Your task to perform on an android device: toggle location history Image 0: 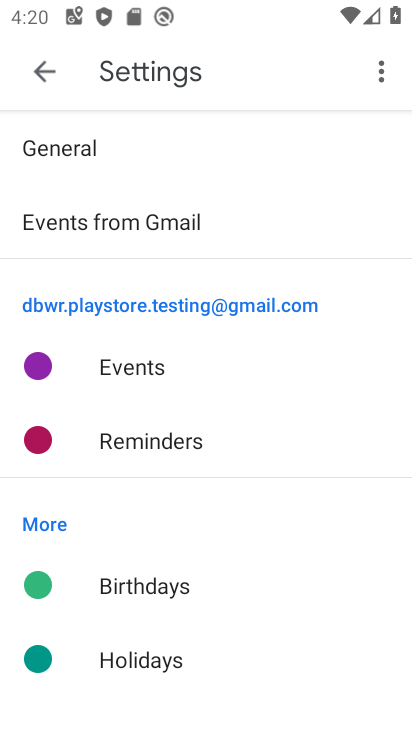
Step 0: press home button
Your task to perform on an android device: toggle location history Image 1: 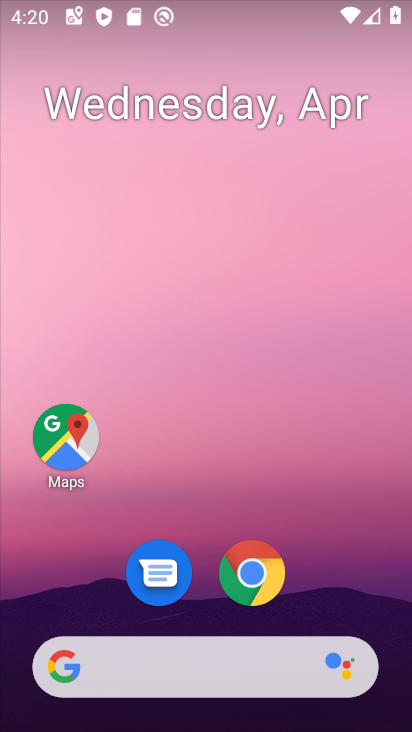
Step 1: click (63, 439)
Your task to perform on an android device: toggle location history Image 2: 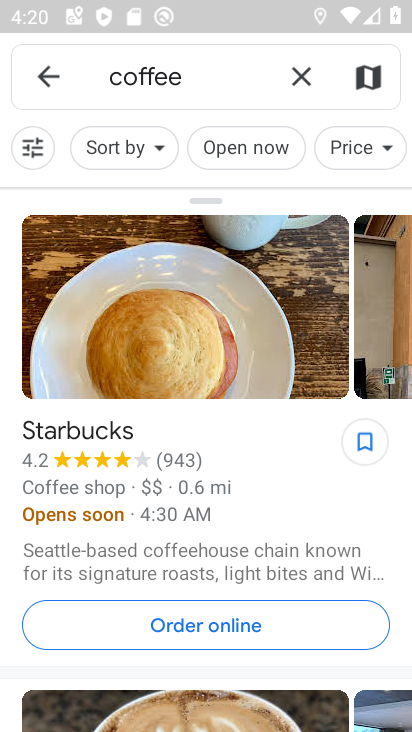
Step 2: click (295, 84)
Your task to perform on an android device: toggle location history Image 3: 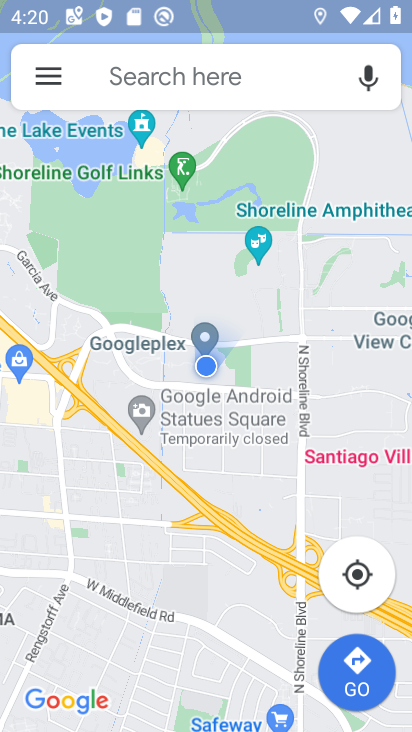
Step 3: click (51, 84)
Your task to perform on an android device: toggle location history Image 4: 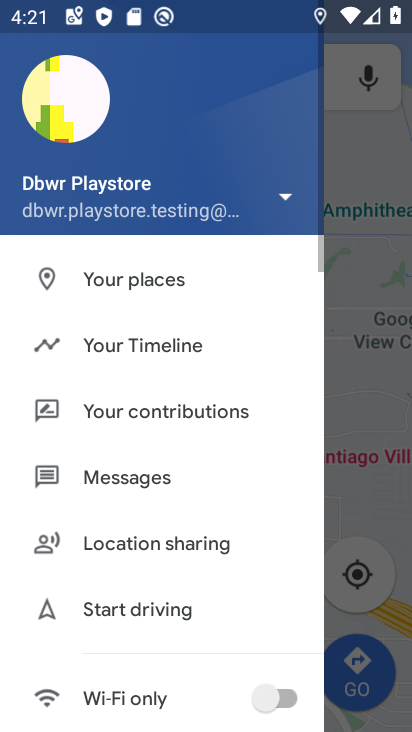
Step 4: click (127, 344)
Your task to perform on an android device: toggle location history Image 5: 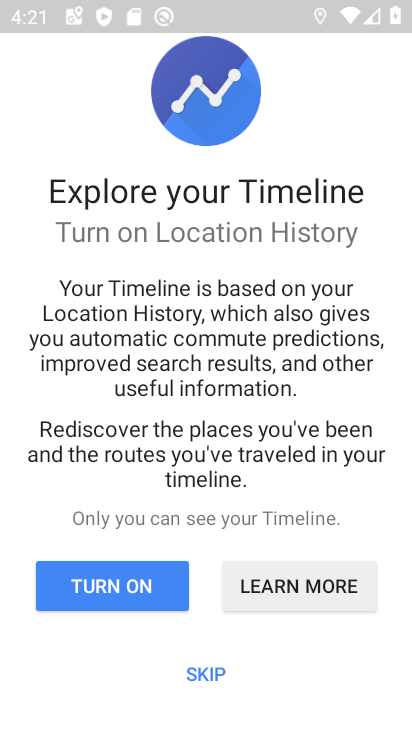
Step 5: click (196, 680)
Your task to perform on an android device: toggle location history Image 6: 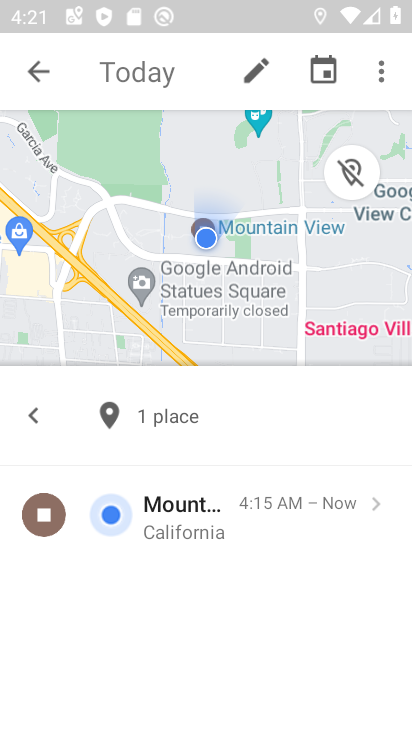
Step 6: click (382, 77)
Your task to perform on an android device: toggle location history Image 7: 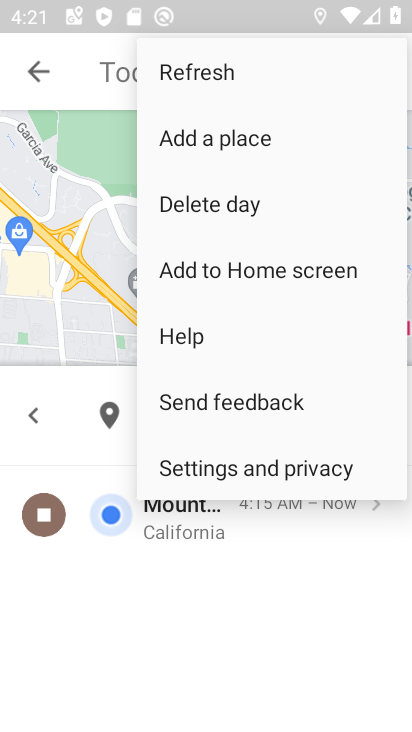
Step 7: click (250, 470)
Your task to perform on an android device: toggle location history Image 8: 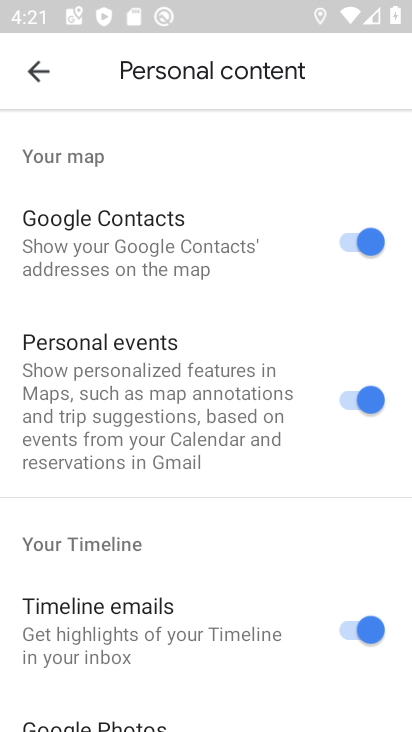
Step 8: drag from (201, 570) to (223, 159)
Your task to perform on an android device: toggle location history Image 9: 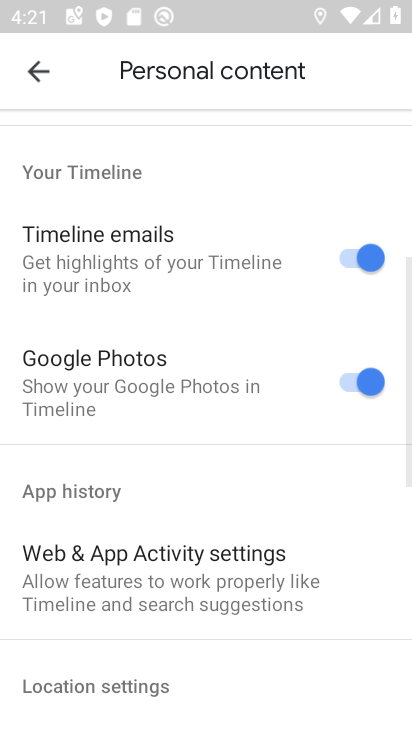
Step 9: drag from (180, 506) to (195, 185)
Your task to perform on an android device: toggle location history Image 10: 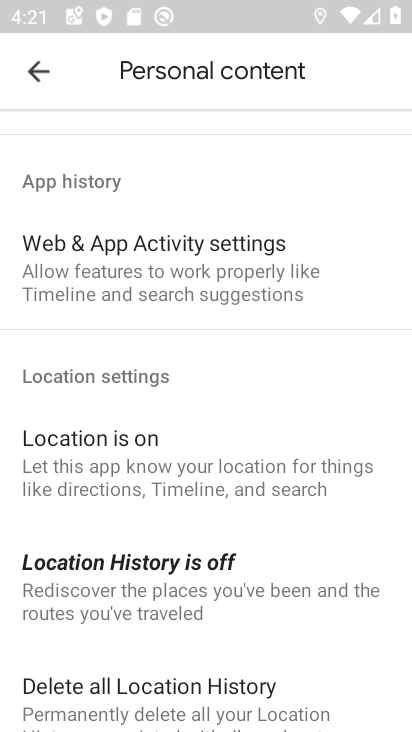
Step 10: drag from (173, 499) to (179, 245)
Your task to perform on an android device: toggle location history Image 11: 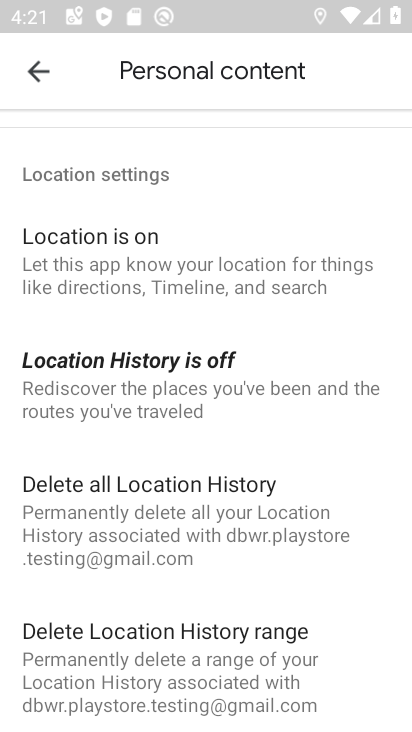
Step 11: click (123, 377)
Your task to perform on an android device: toggle location history Image 12: 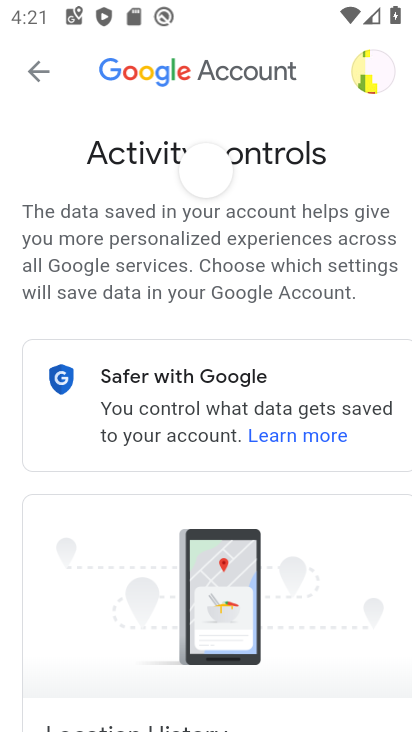
Step 12: drag from (295, 613) to (285, 213)
Your task to perform on an android device: toggle location history Image 13: 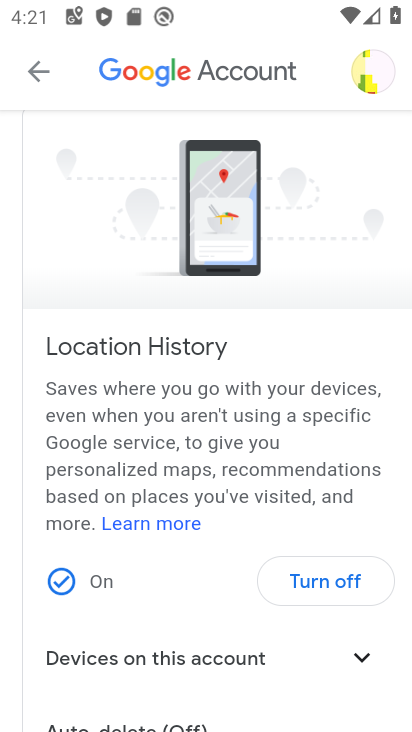
Step 13: click (337, 584)
Your task to perform on an android device: toggle location history Image 14: 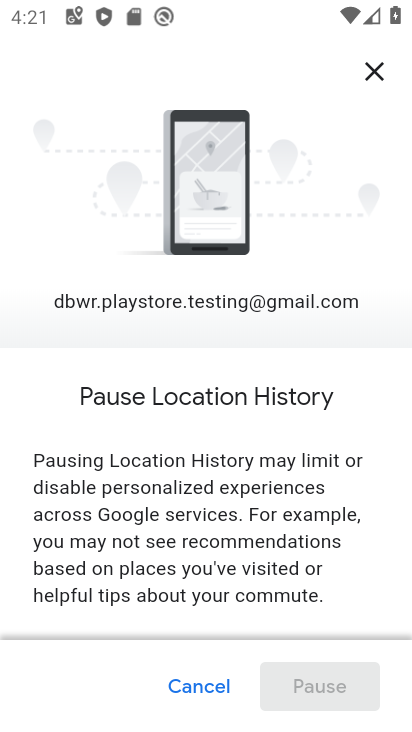
Step 14: drag from (240, 579) to (211, 153)
Your task to perform on an android device: toggle location history Image 15: 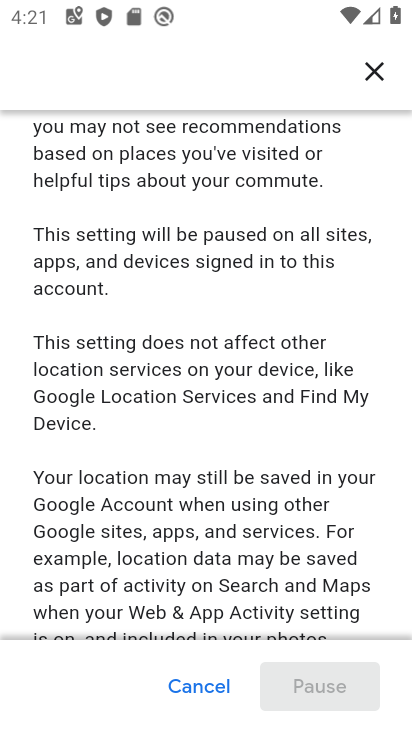
Step 15: drag from (190, 530) to (196, 108)
Your task to perform on an android device: toggle location history Image 16: 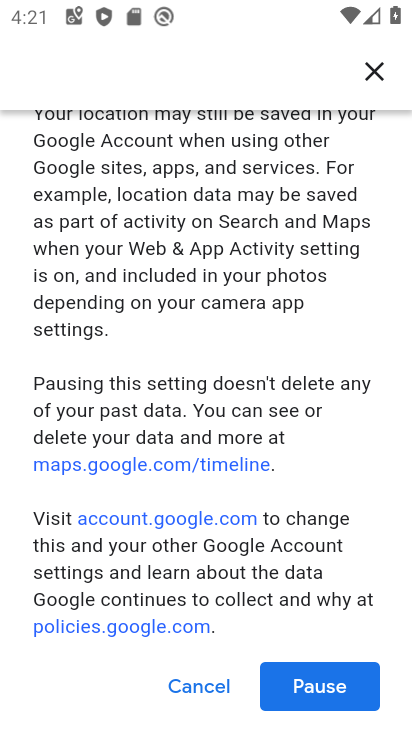
Step 16: drag from (172, 539) to (172, 195)
Your task to perform on an android device: toggle location history Image 17: 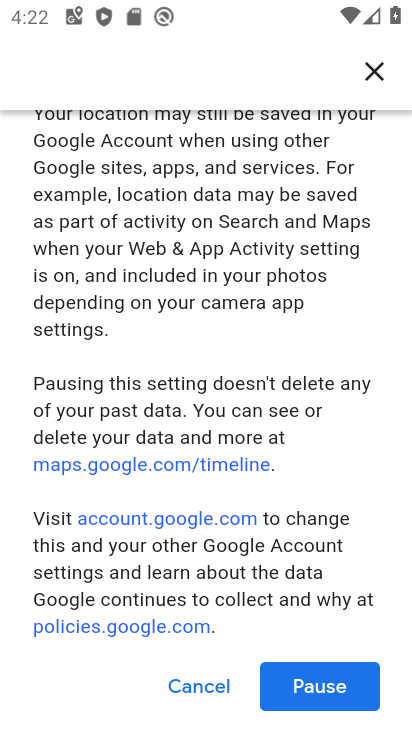
Step 17: click (313, 692)
Your task to perform on an android device: toggle location history Image 18: 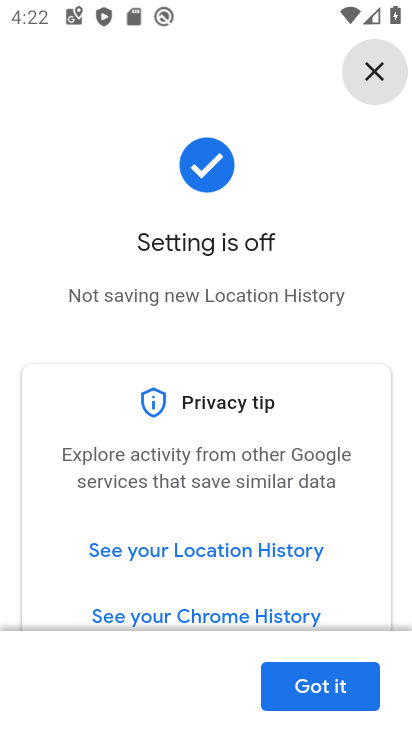
Step 18: click (326, 688)
Your task to perform on an android device: toggle location history Image 19: 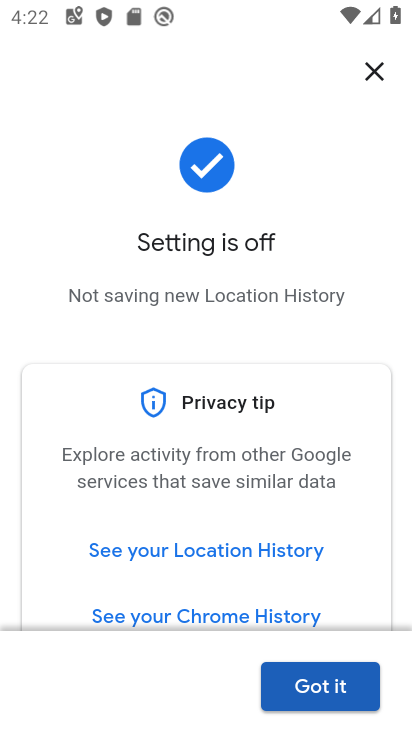
Step 19: click (332, 692)
Your task to perform on an android device: toggle location history Image 20: 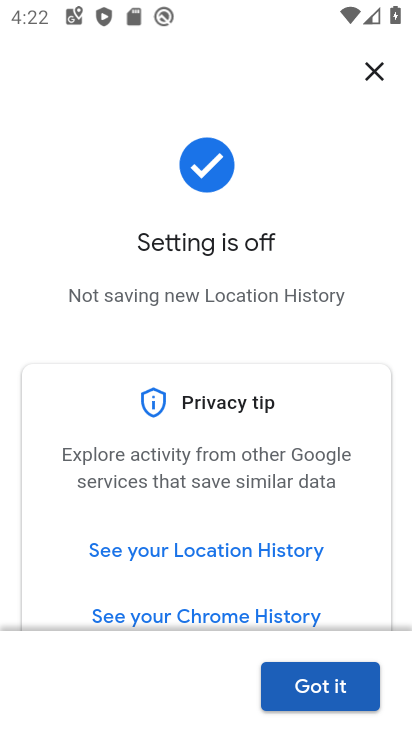
Step 20: click (319, 694)
Your task to perform on an android device: toggle location history Image 21: 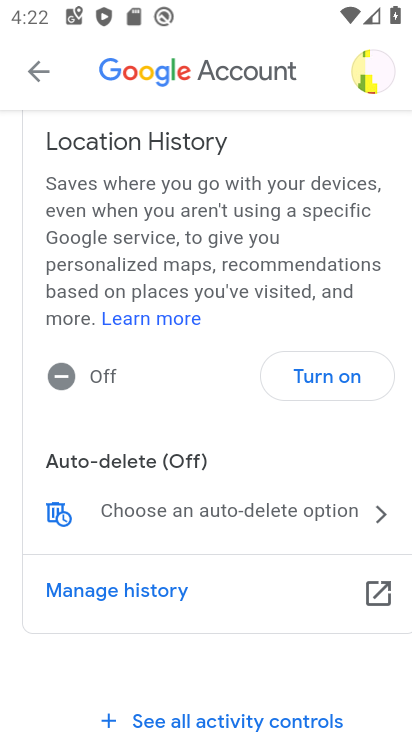
Step 21: task complete